Your task to perform on an android device: add a label to a message in the gmail app Image 0: 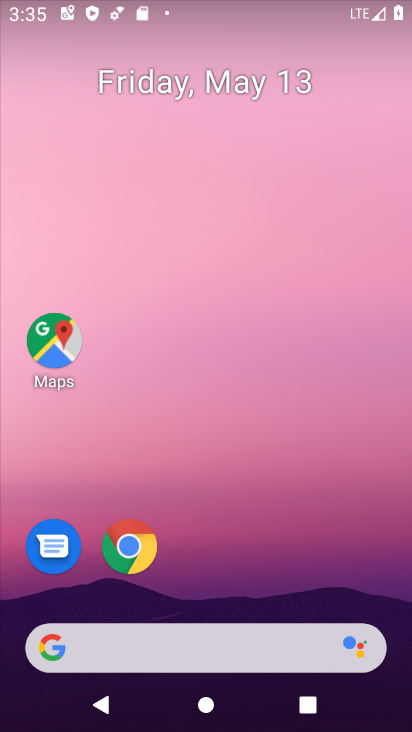
Step 0: drag from (182, 611) to (156, 15)
Your task to perform on an android device: add a label to a message in the gmail app Image 1: 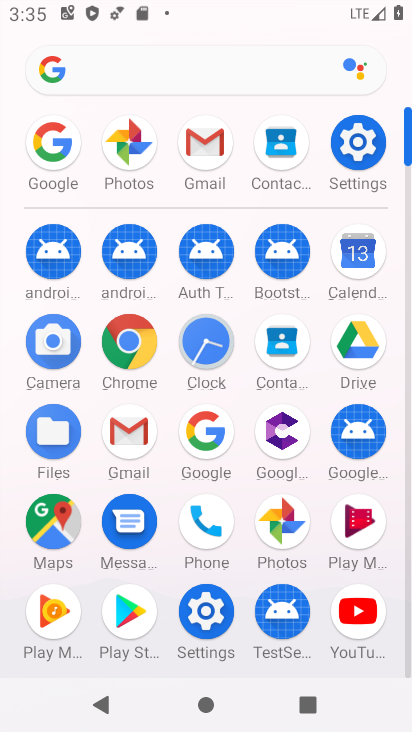
Step 1: click (191, 131)
Your task to perform on an android device: add a label to a message in the gmail app Image 2: 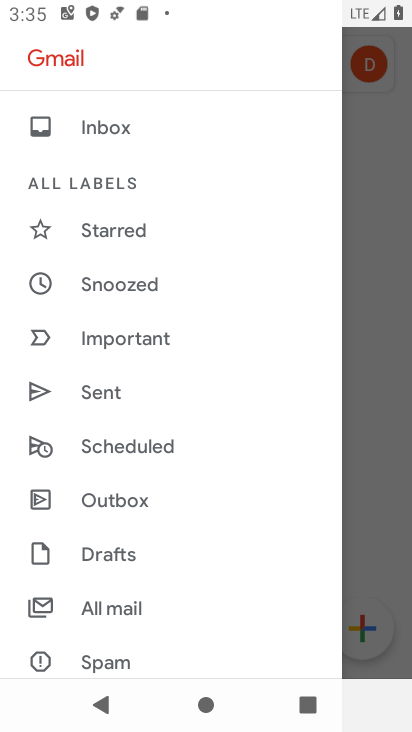
Step 2: click (368, 247)
Your task to perform on an android device: add a label to a message in the gmail app Image 3: 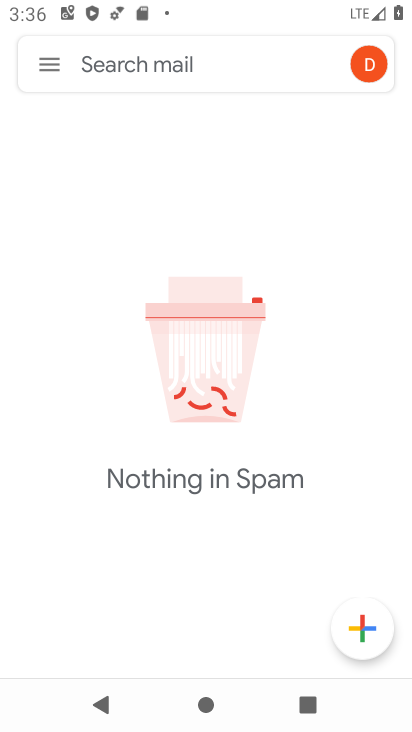
Step 3: task complete